Your task to perform on an android device: search for starred emails in the gmail app Image 0: 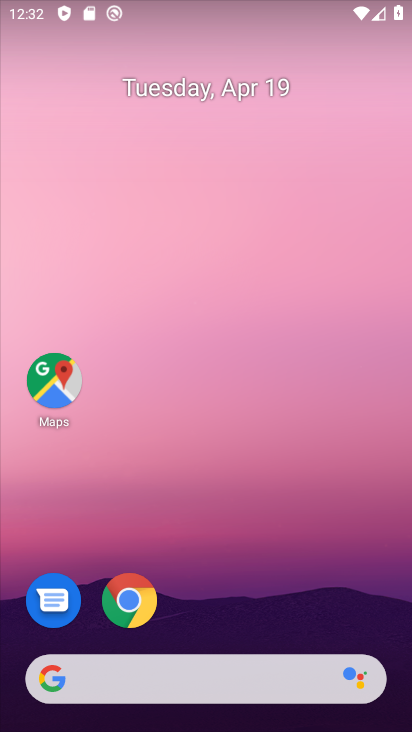
Step 0: click (326, 670)
Your task to perform on an android device: search for starred emails in the gmail app Image 1: 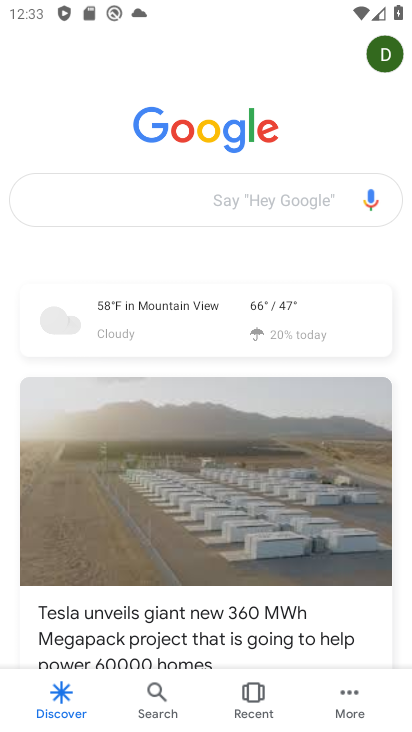
Step 1: press home button
Your task to perform on an android device: search for starred emails in the gmail app Image 2: 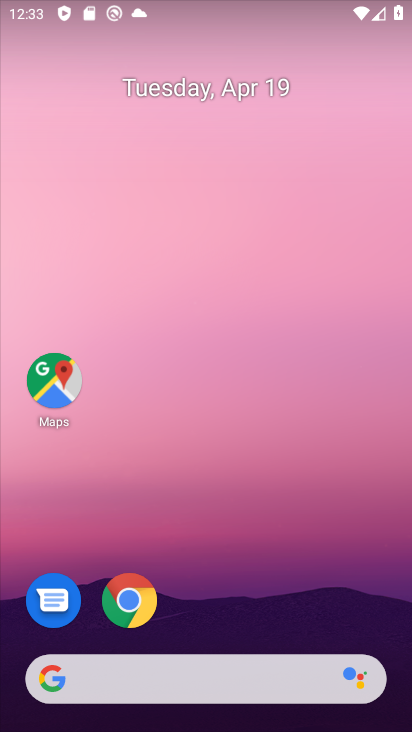
Step 2: drag from (199, 548) to (244, 40)
Your task to perform on an android device: search for starred emails in the gmail app Image 3: 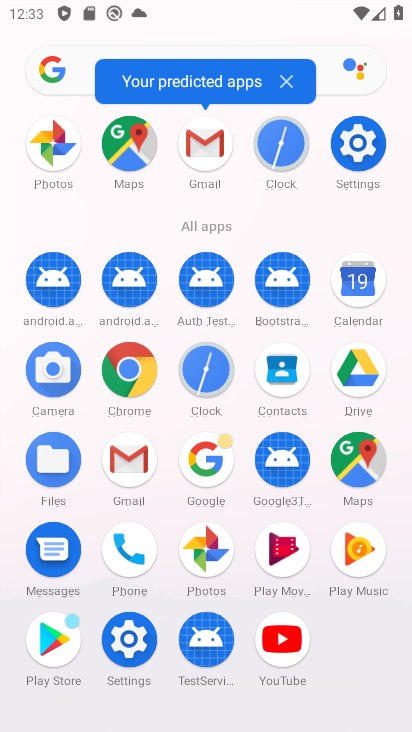
Step 3: click (210, 159)
Your task to perform on an android device: search for starred emails in the gmail app Image 4: 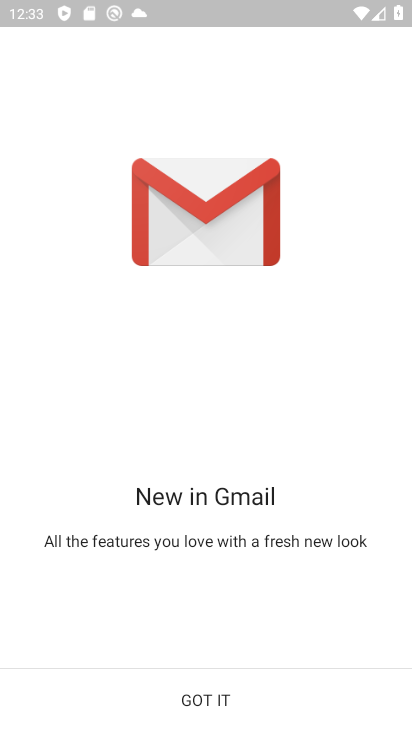
Step 4: click (181, 679)
Your task to perform on an android device: search for starred emails in the gmail app Image 5: 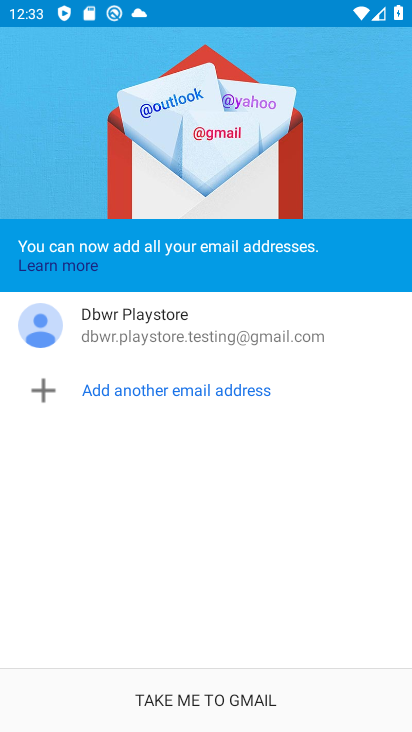
Step 5: click (203, 696)
Your task to perform on an android device: search for starred emails in the gmail app Image 6: 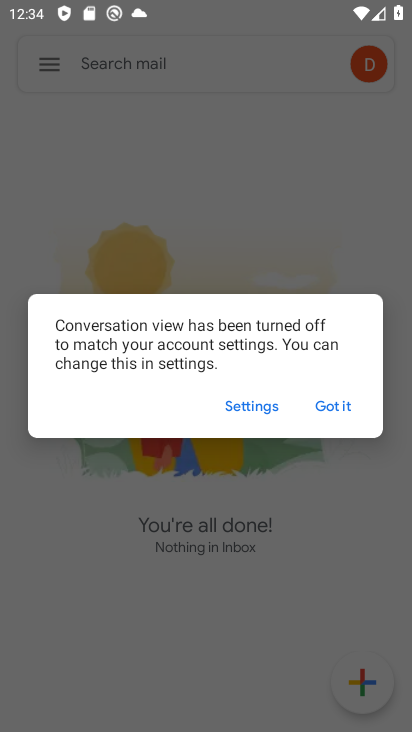
Step 6: click (326, 413)
Your task to perform on an android device: search for starred emails in the gmail app Image 7: 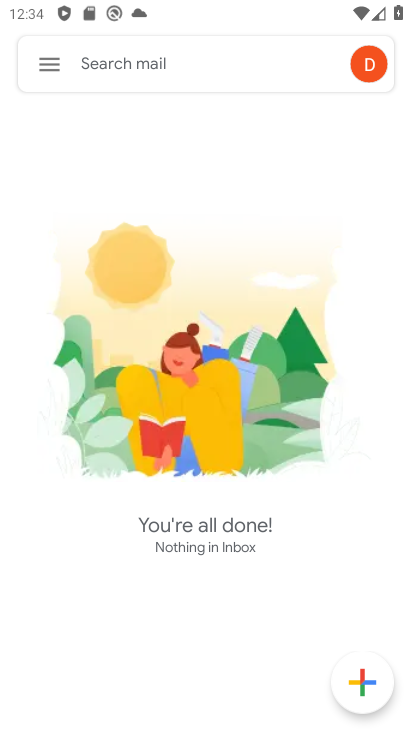
Step 7: click (46, 68)
Your task to perform on an android device: search for starred emails in the gmail app Image 8: 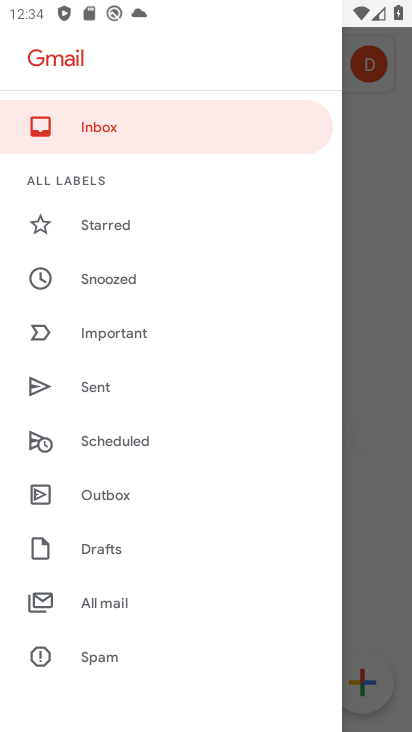
Step 8: click (122, 221)
Your task to perform on an android device: search for starred emails in the gmail app Image 9: 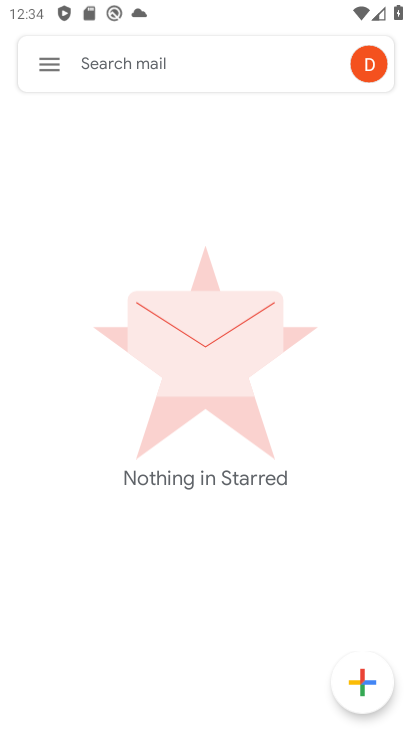
Step 9: task complete